Your task to perform on an android device: Open the stopwatch Image 0: 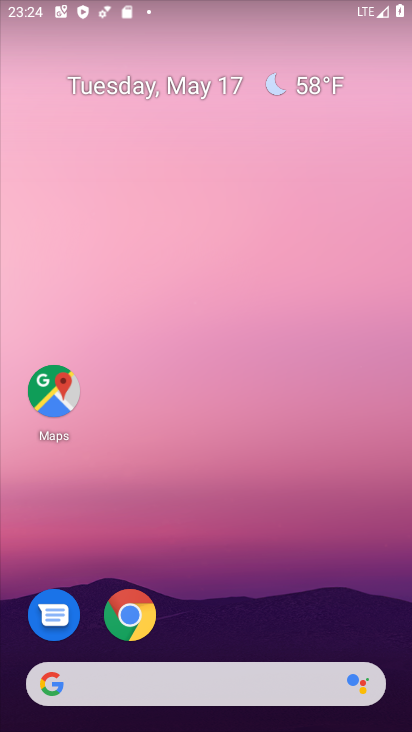
Step 0: drag from (205, 596) to (197, 246)
Your task to perform on an android device: Open the stopwatch Image 1: 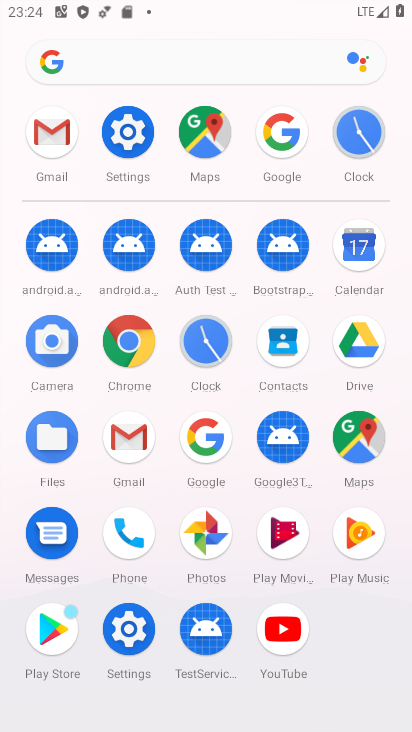
Step 1: click (352, 154)
Your task to perform on an android device: Open the stopwatch Image 2: 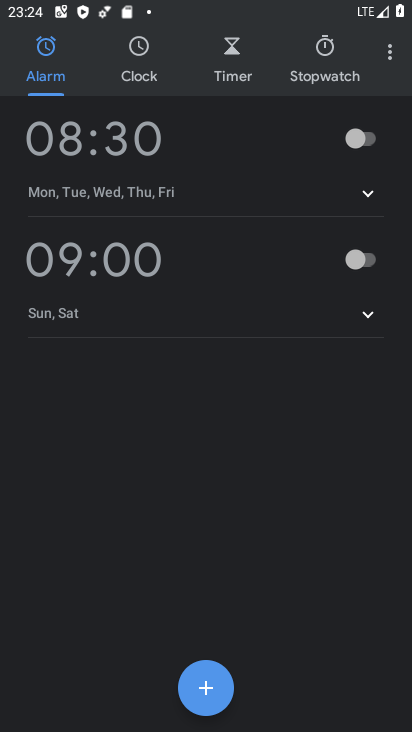
Step 2: click (320, 49)
Your task to perform on an android device: Open the stopwatch Image 3: 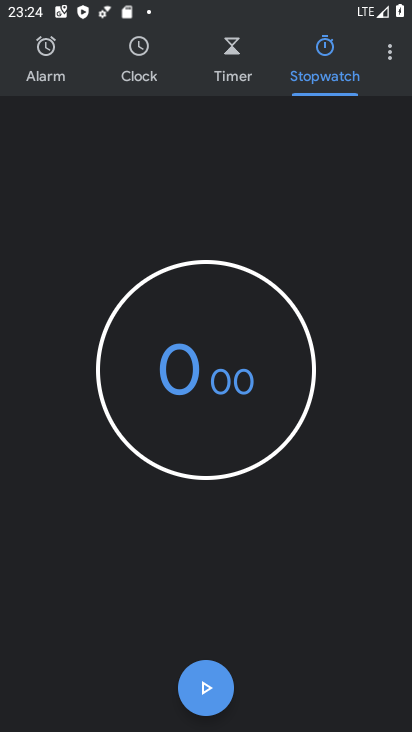
Step 3: task complete